Your task to perform on an android device: Add "logitech g903" to the cart on bestbuy, then select checkout. Image 0: 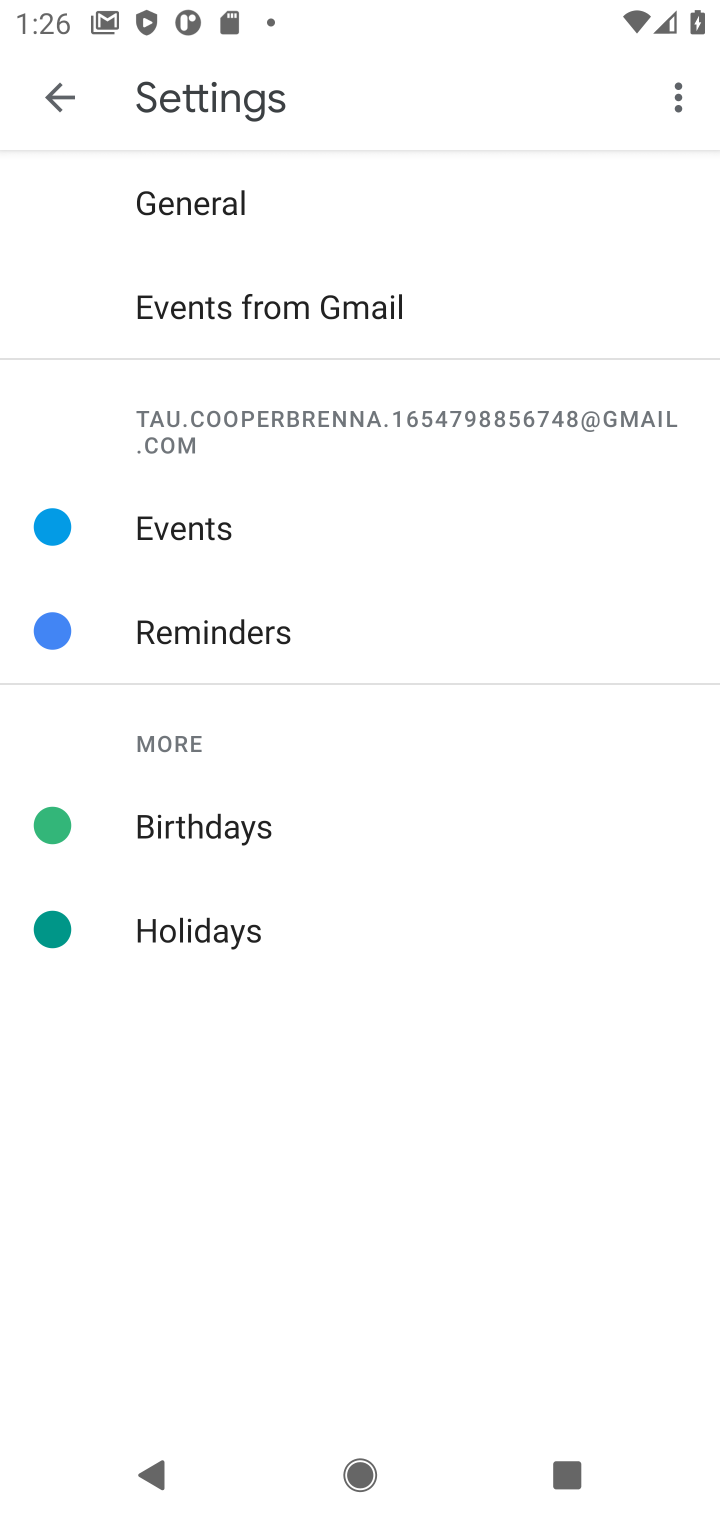
Step 0: press home button
Your task to perform on an android device: Add "logitech g903" to the cart on bestbuy, then select checkout. Image 1: 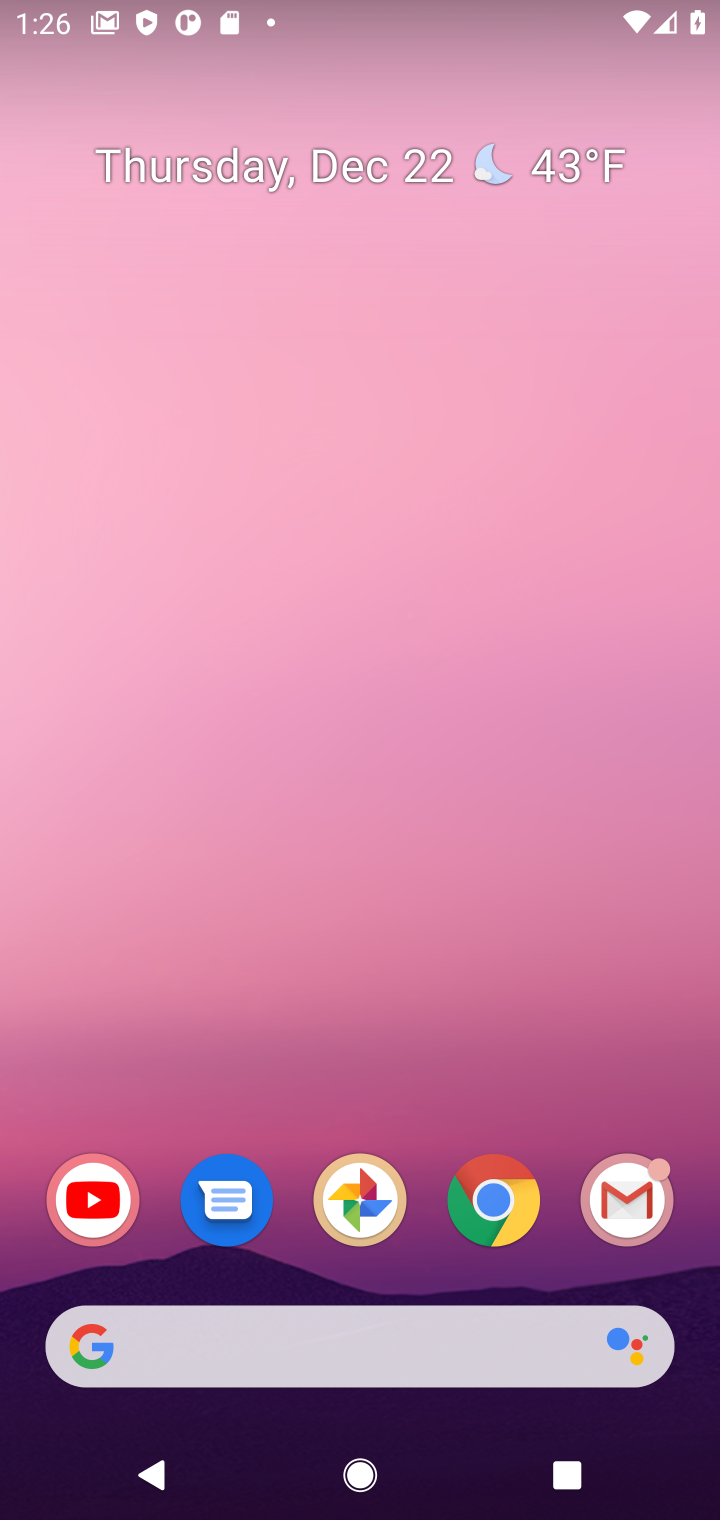
Step 1: click (500, 1208)
Your task to perform on an android device: Add "logitech g903" to the cart on bestbuy, then select checkout. Image 2: 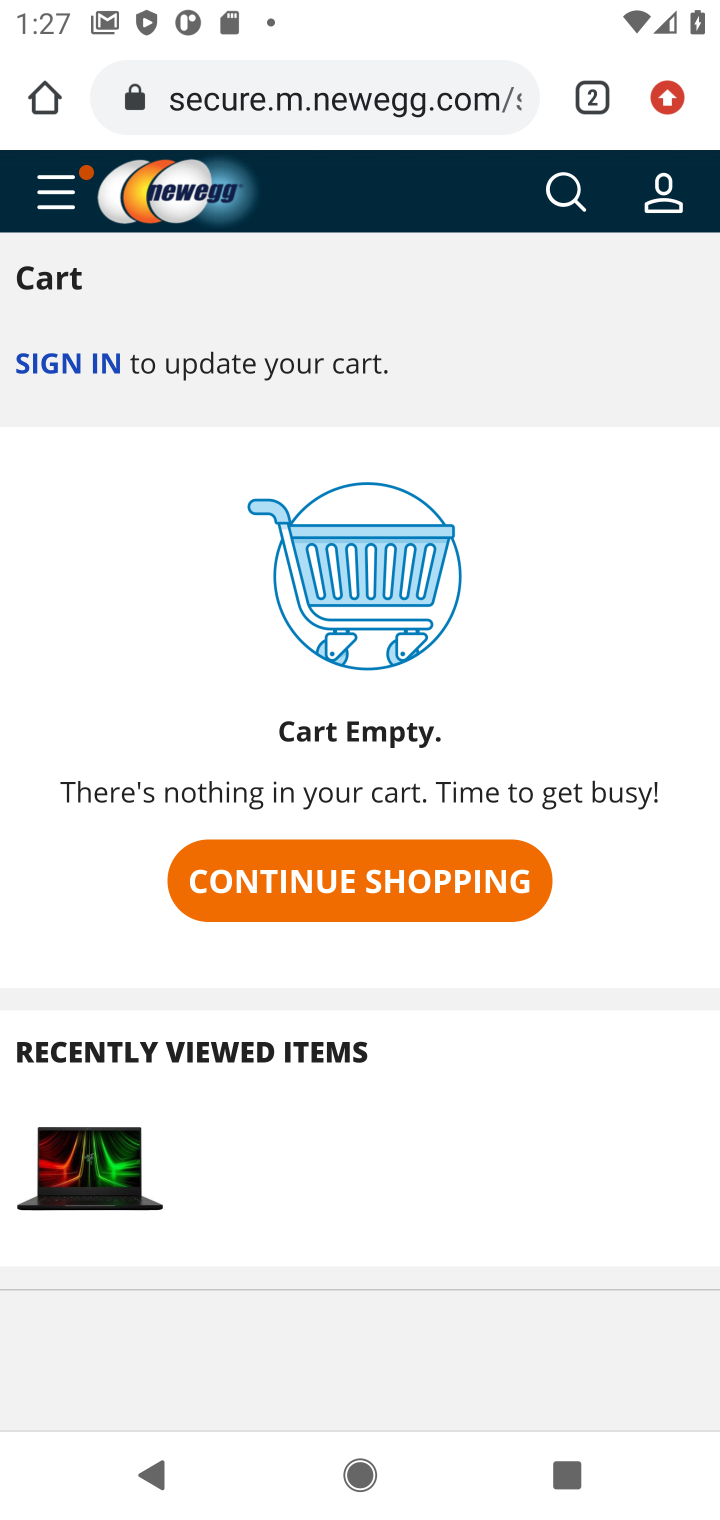
Step 2: click (291, 104)
Your task to perform on an android device: Add "logitech g903" to the cart on bestbuy, then select checkout. Image 3: 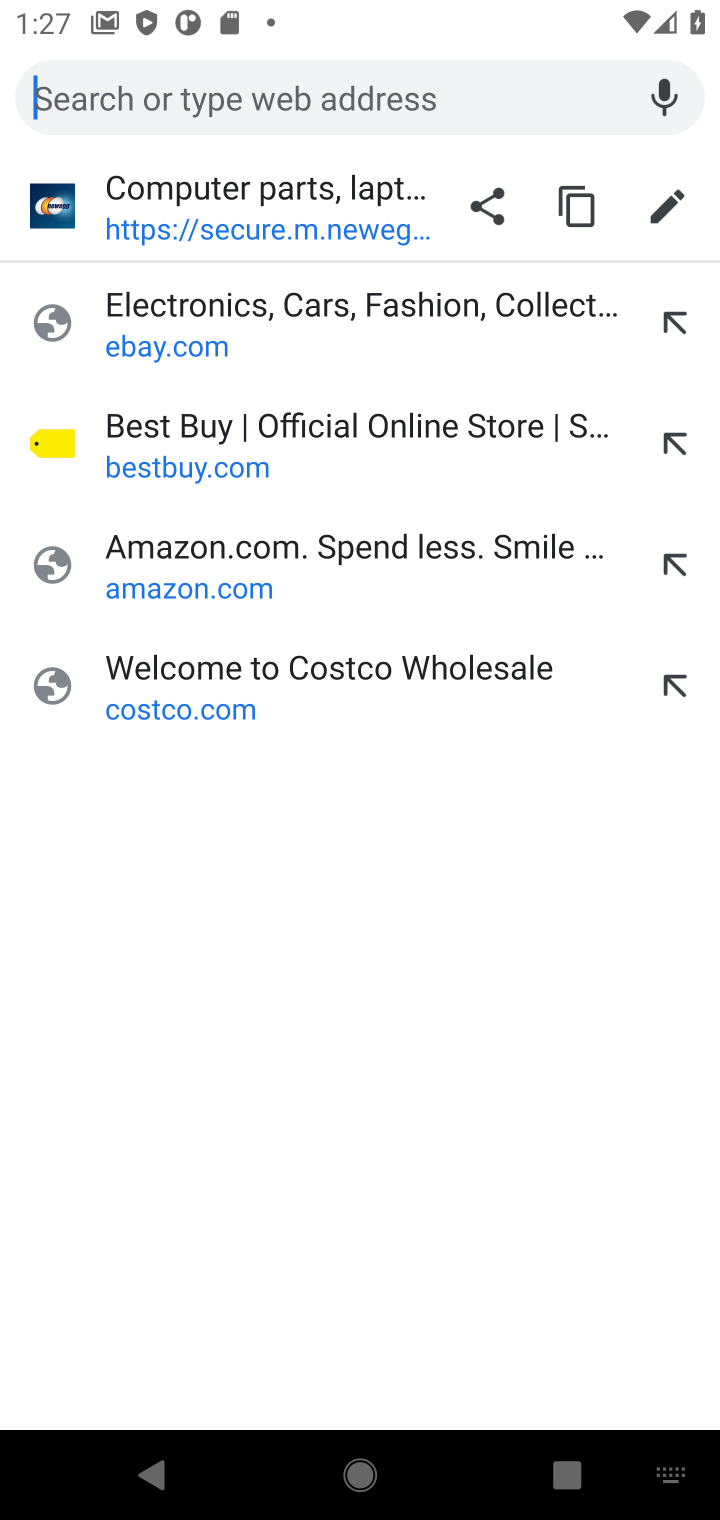
Step 3: click (163, 448)
Your task to perform on an android device: Add "logitech g903" to the cart on bestbuy, then select checkout. Image 4: 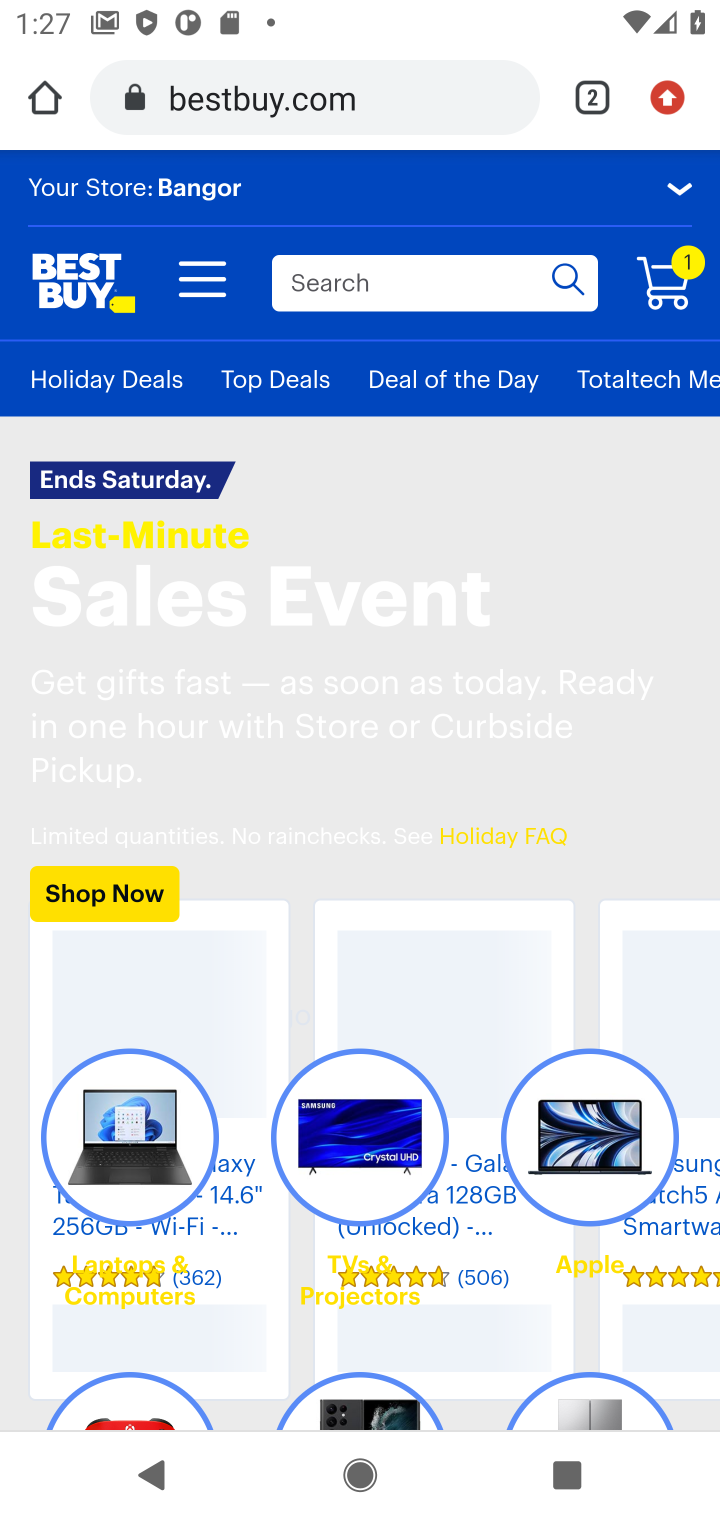
Step 4: click (317, 282)
Your task to perform on an android device: Add "logitech g903" to the cart on bestbuy, then select checkout. Image 5: 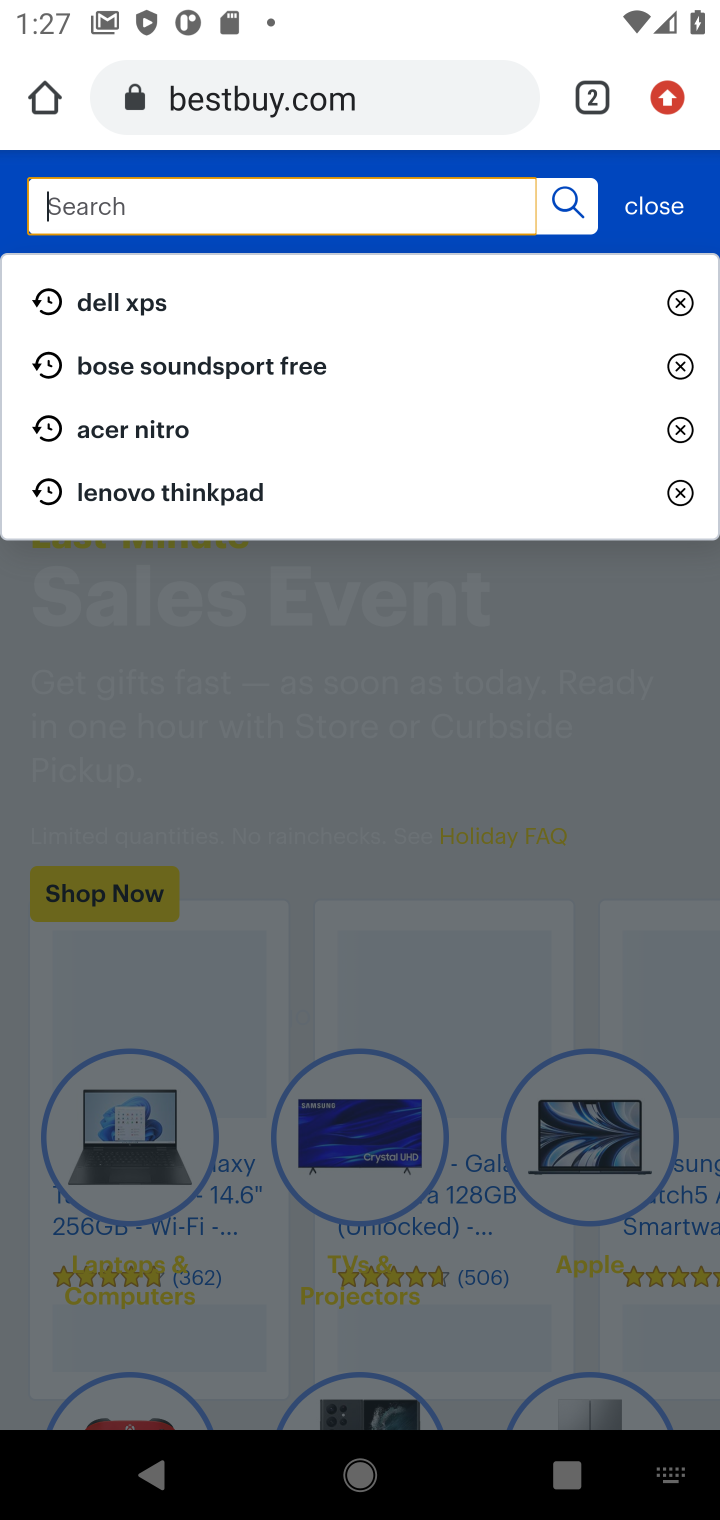
Step 5: type "logitech g903"
Your task to perform on an android device: Add "logitech g903" to the cart on bestbuy, then select checkout. Image 6: 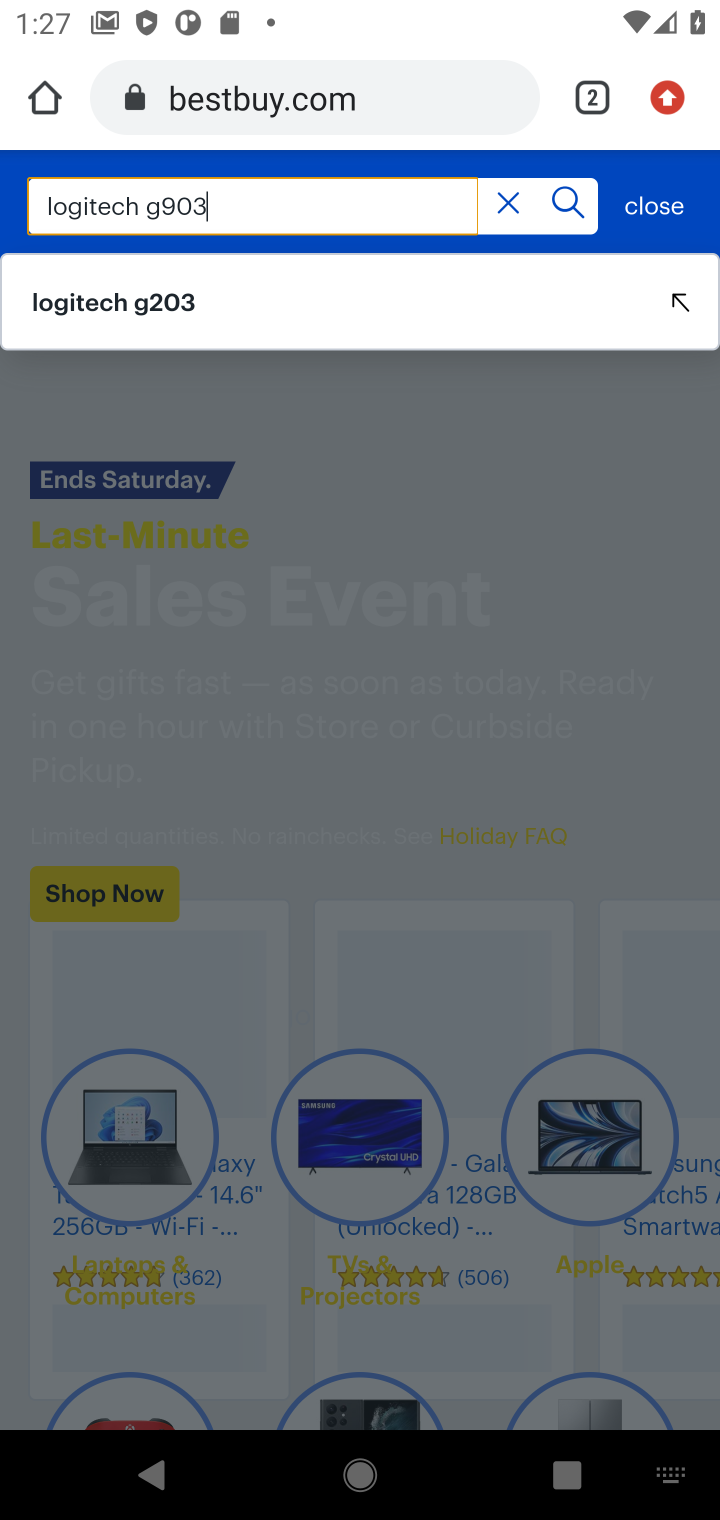
Step 6: click (564, 206)
Your task to perform on an android device: Add "logitech g903" to the cart on bestbuy, then select checkout. Image 7: 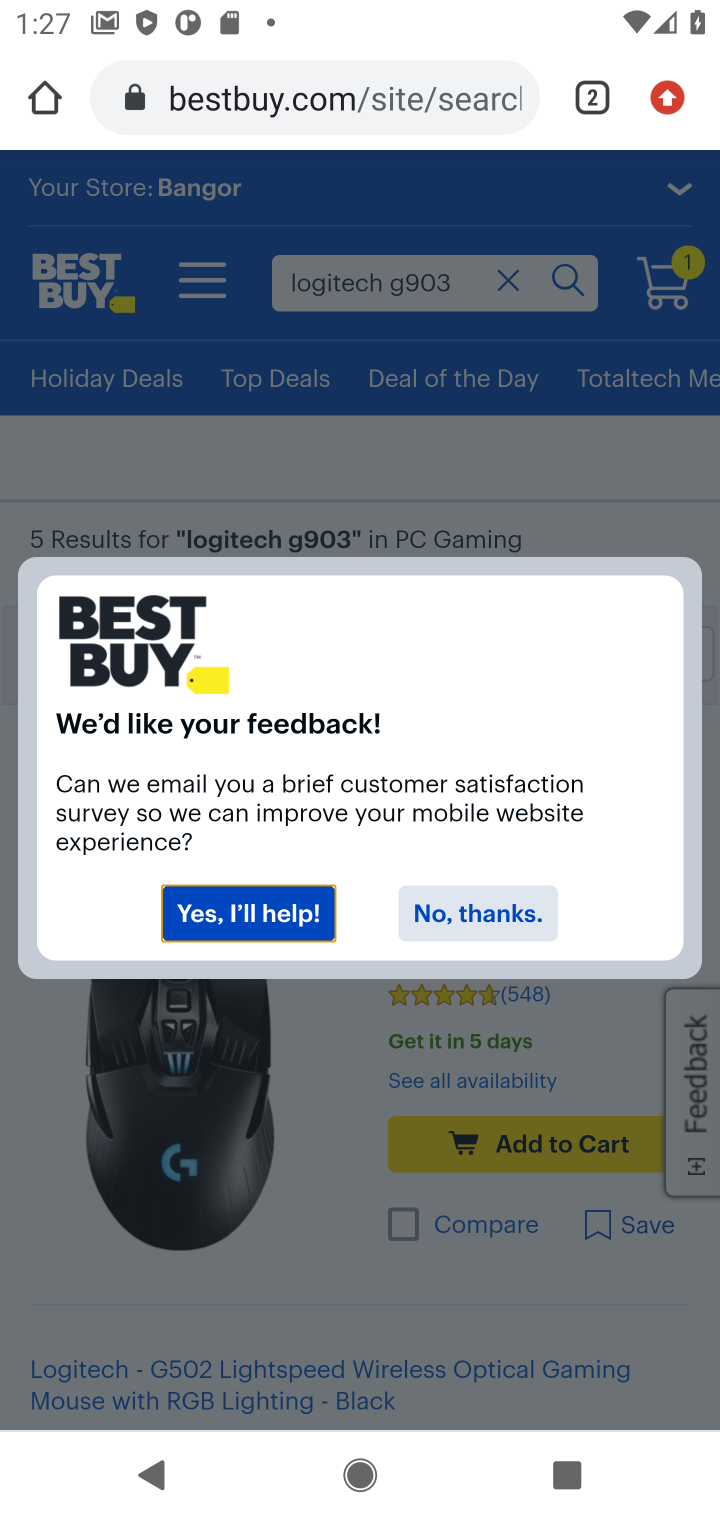
Step 7: click (468, 929)
Your task to perform on an android device: Add "logitech g903" to the cart on bestbuy, then select checkout. Image 8: 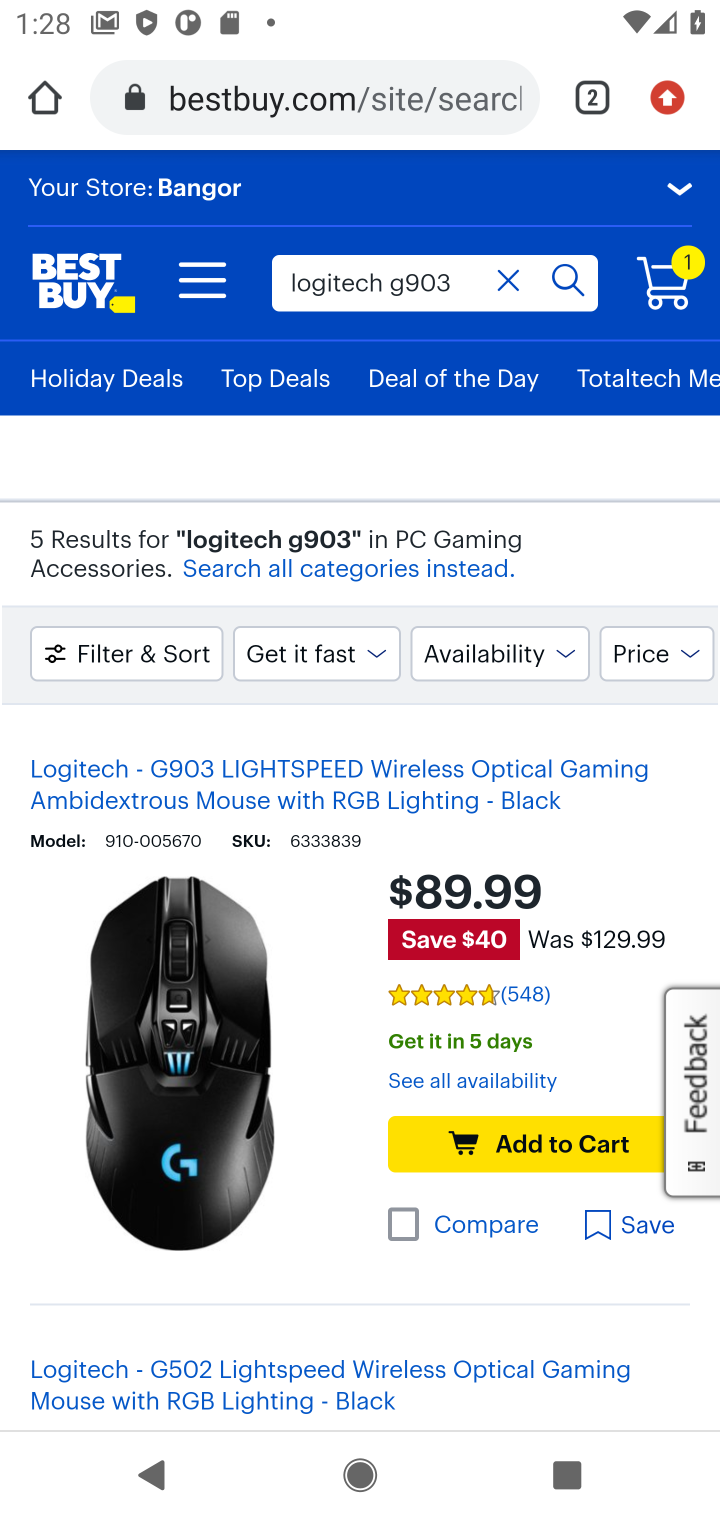
Step 8: click (521, 1133)
Your task to perform on an android device: Add "logitech g903" to the cart on bestbuy, then select checkout. Image 9: 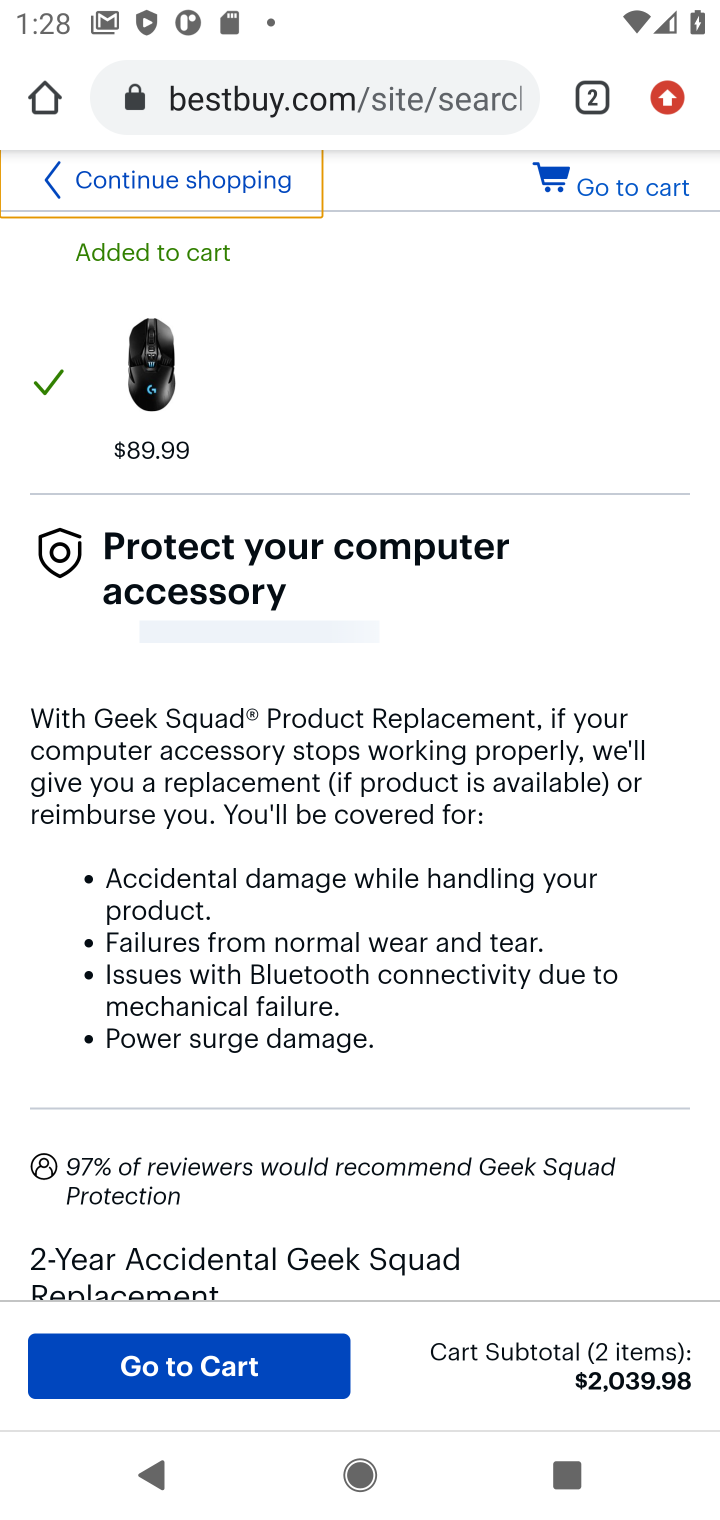
Step 9: click (622, 196)
Your task to perform on an android device: Add "logitech g903" to the cart on bestbuy, then select checkout. Image 10: 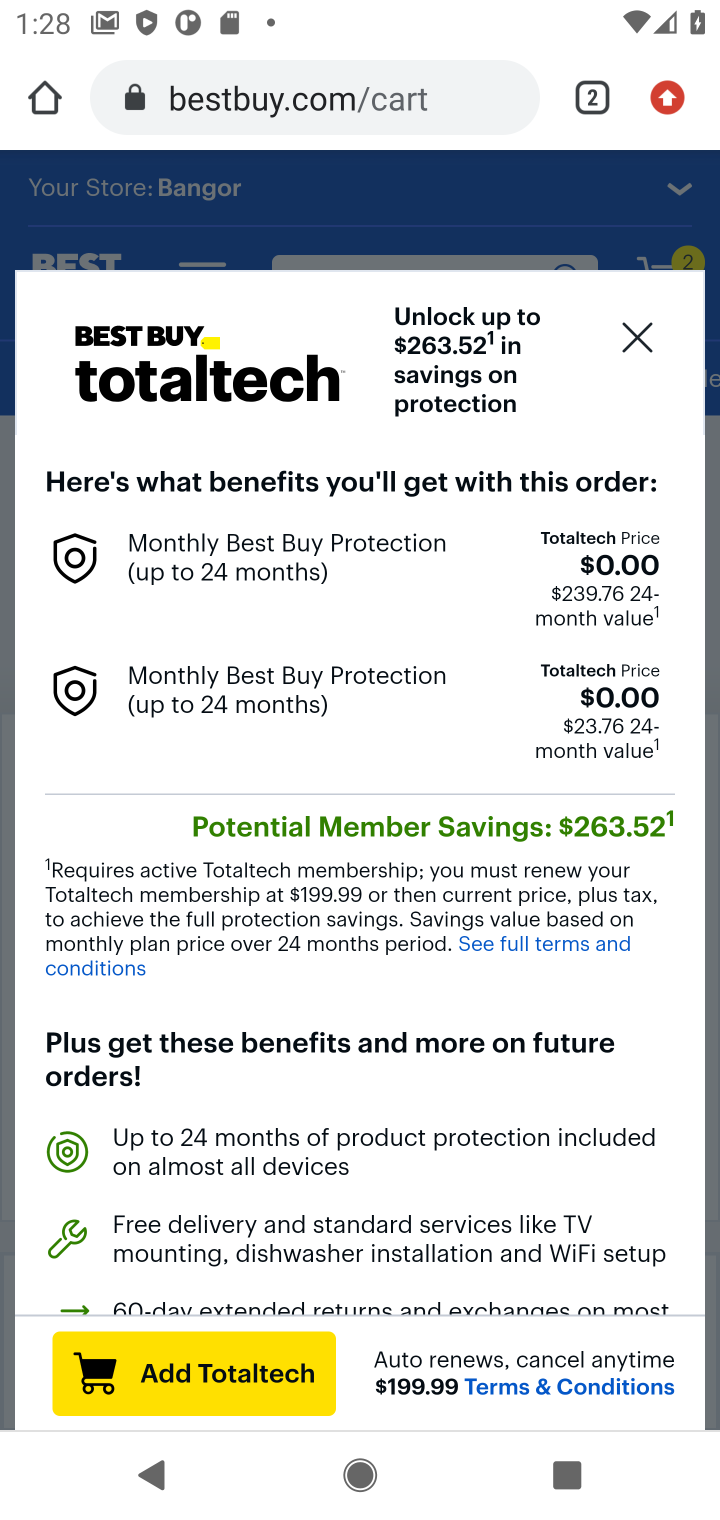
Step 10: click (643, 348)
Your task to perform on an android device: Add "logitech g903" to the cart on bestbuy, then select checkout. Image 11: 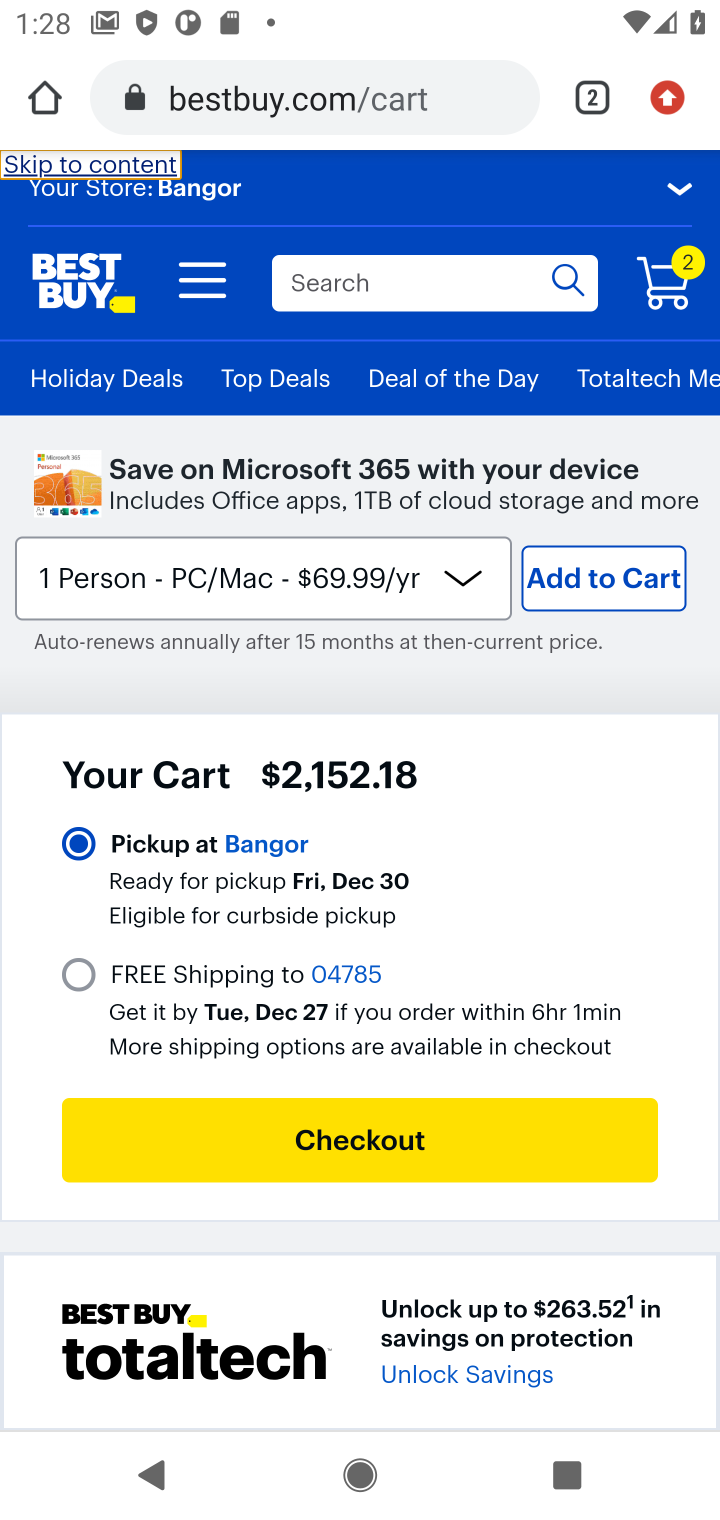
Step 11: click (289, 1138)
Your task to perform on an android device: Add "logitech g903" to the cart on bestbuy, then select checkout. Image 12: 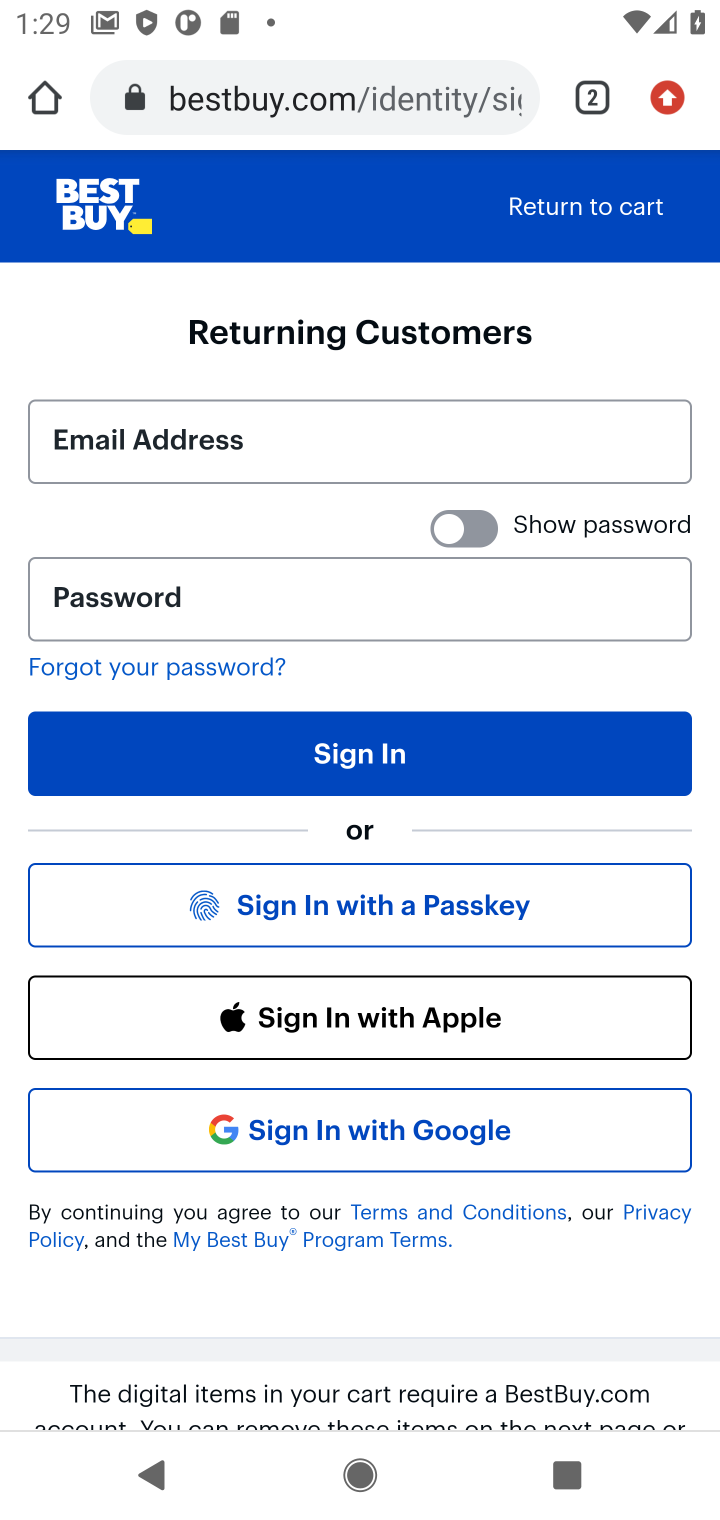
Step 12: task complete